Your task to perform on an android device: change alarm snooze length Image 0: 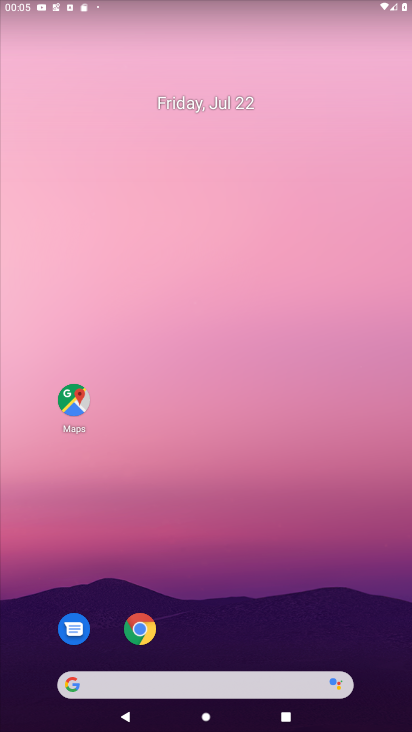
Step 0: drag from (264, 647) to (332, 74)
Your task to perform on an android device: change alarm snooze length Image 1: 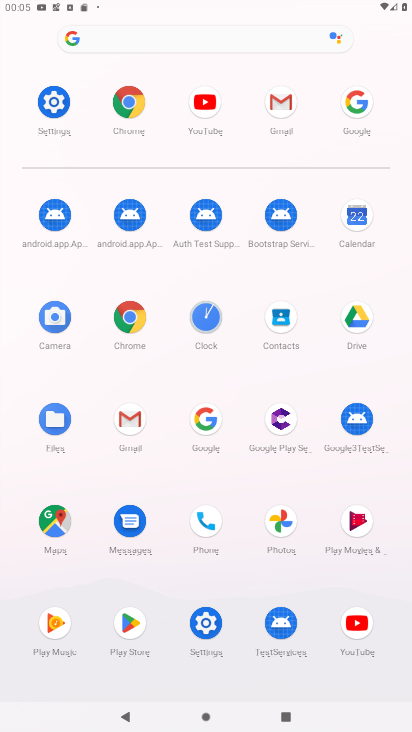
Step 1: click (208, 331)
Your task to perform on an android device: change alarm snooze length Image 2: 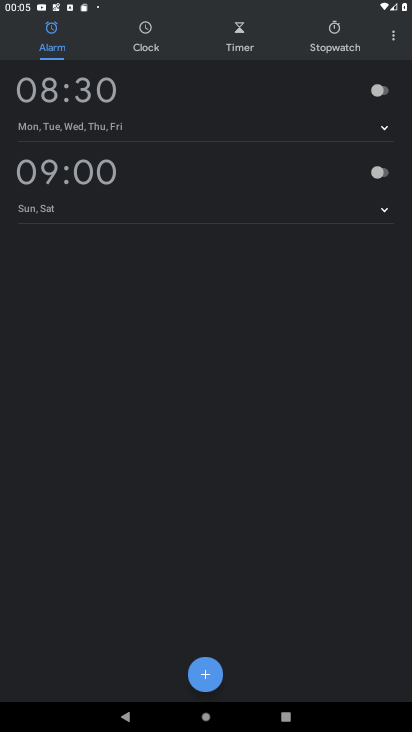
Step 2: click (395, 36)
Your task to perform on an android device: change alarm snooze length Image 3: 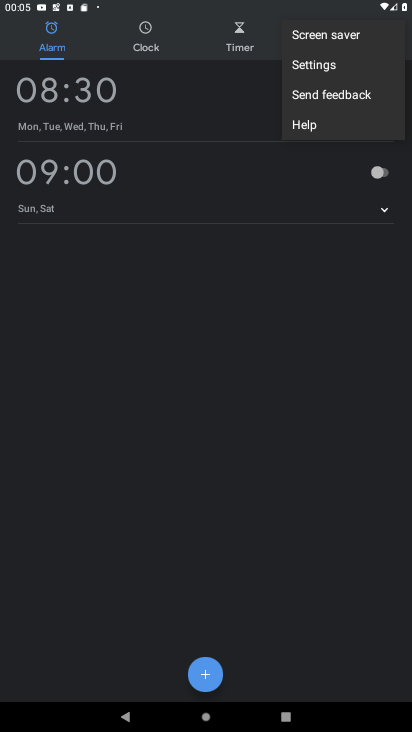
Step 3: click (331, 68)
Your task to perform on an android device: change alarm snooze length Image 4: 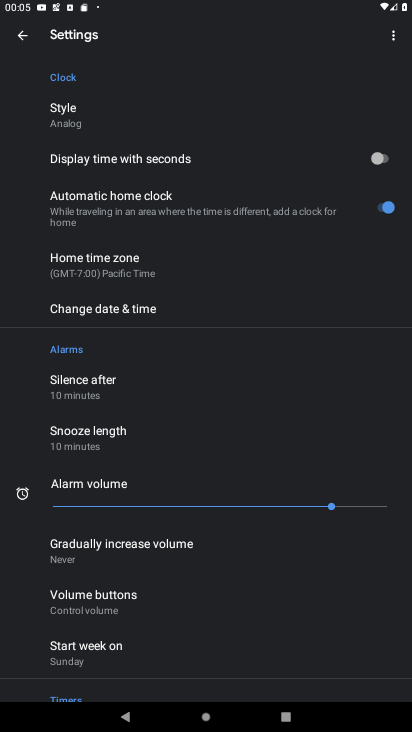
Step 4: click (151, 437)
Your task to perform on an android device: change alarm snooze length Image 5: 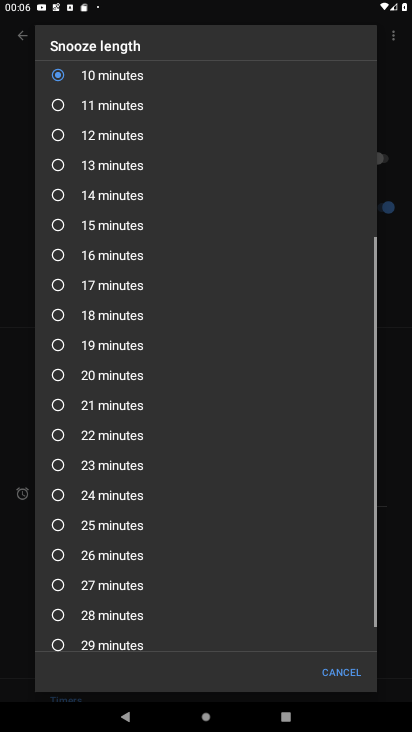
Step 5: click (128, 112)
Your task to perform on an android device: change alarm snooze length Image 6: 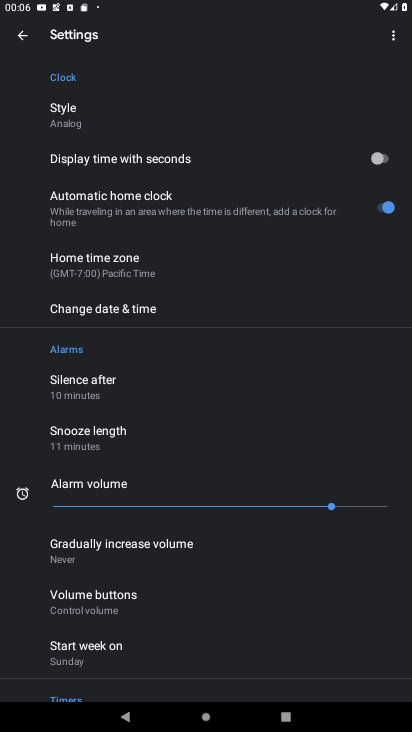
Step 6: task complete